Your task to perform on an android device: Open calendar and show me the second week of next month Image 0: 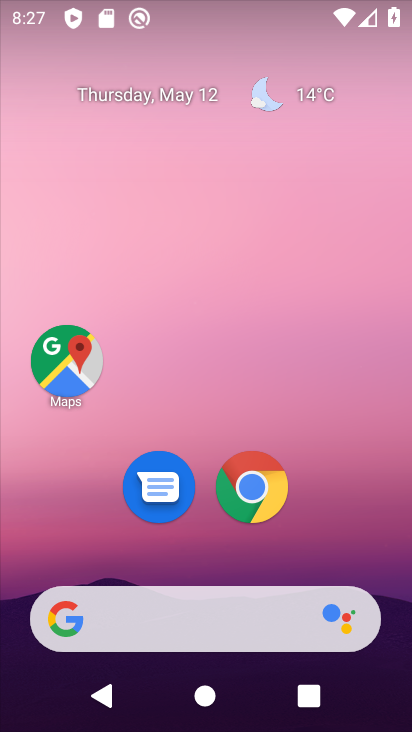
Step 0: drag from (46, 478) to (195, 187)
Your task to perform on an android device: Open calendar and show me the second week of next month Image 1: 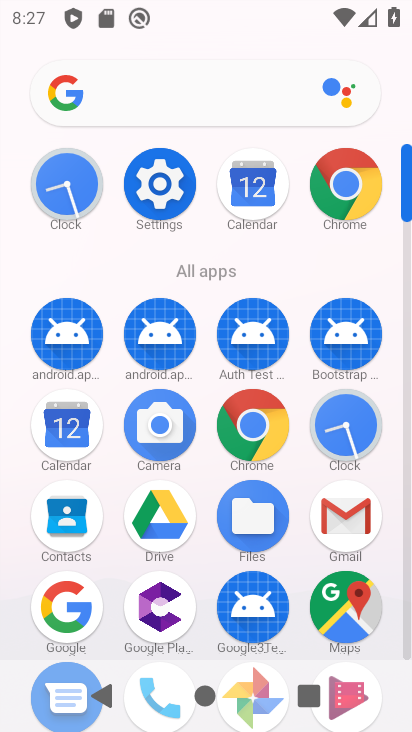
Step 1: click (236, 190)
Your task to perform on an android device: Open calendar and show me the second week of next month Image 2: 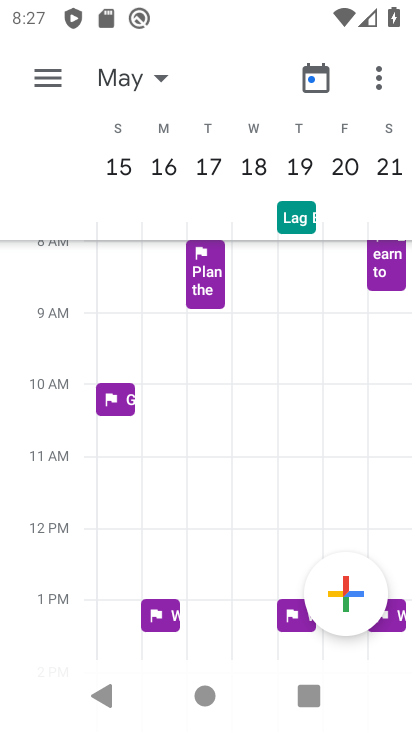
Step 2: click (150, 81)
Your task to perform on an android device: Open calendar and show me the second week of next month Image 3: 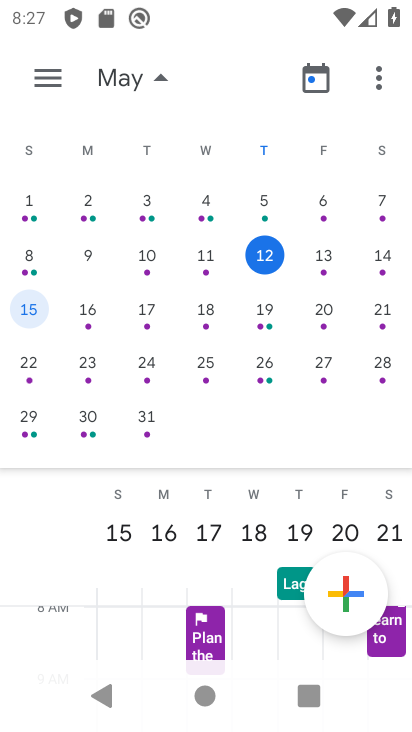
Step 3: drag from (374, 239) to (62, 218)
Your task to perform on an android device: Open calendar and show me the second week of next month Image 4: 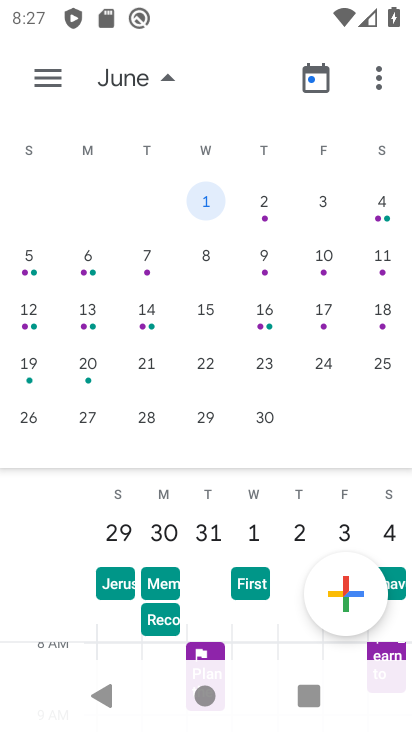
Step 4: click (85, 258)
Your task to perform on an android device: Open calendar and show me the second week of next month Image 5: 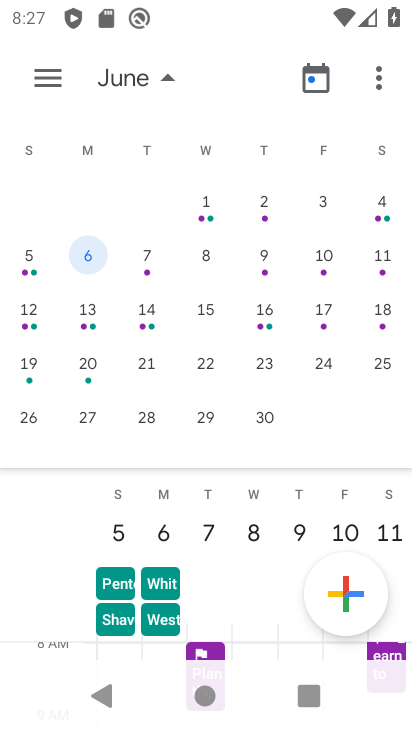
Step 5: click (143, 253)
Your task to perform on an android device: Open calendar and show me the second week of next month Image 6: 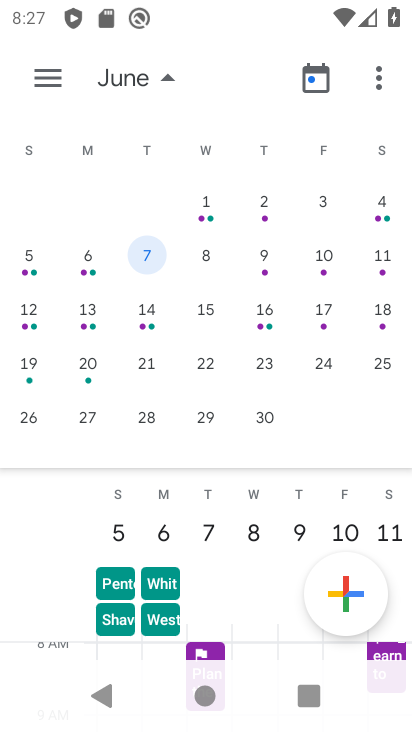
Step 6: click (210, 258)
Your task to perform on an android device: Open calendar and show me the second week of next month Image 7: 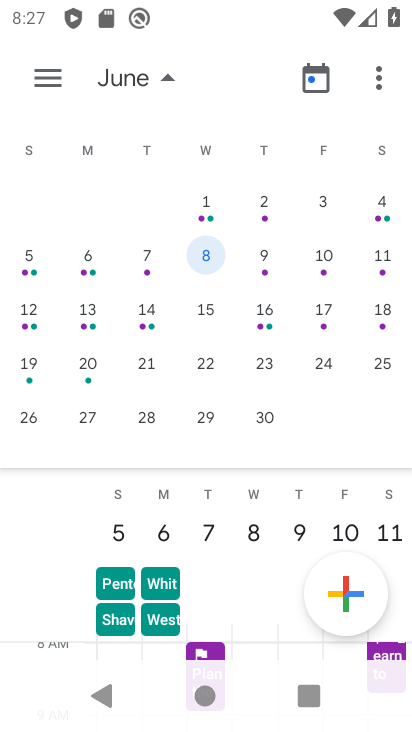
Step 7: click (259, 254)
Your task to perform on an android device: Open calendar and show me the second week of next month Image 8: 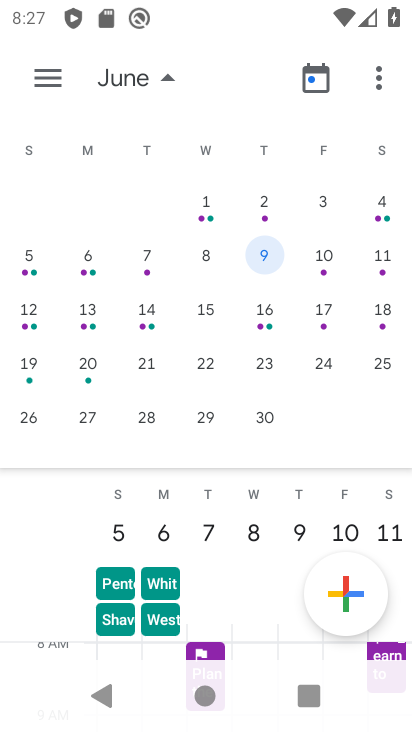
Step 8: click (313, 259)
Your task to perform on an android device: Open calendar and show me the second week of next month Image 9: 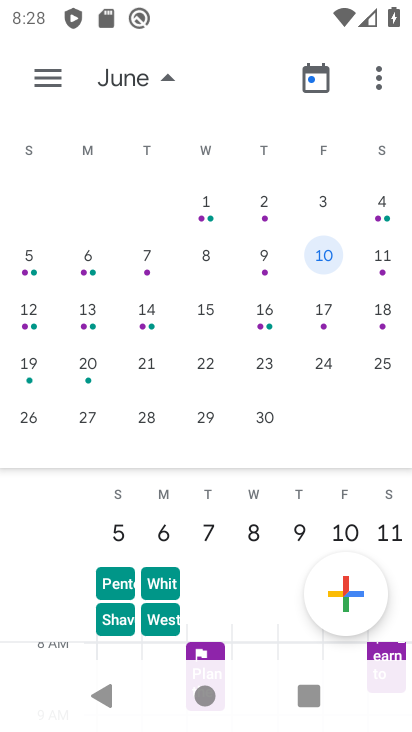
Step 9: click (96, 312)
Your task to perform on an android device: Open calendar and show me the second week of next month Image 10: 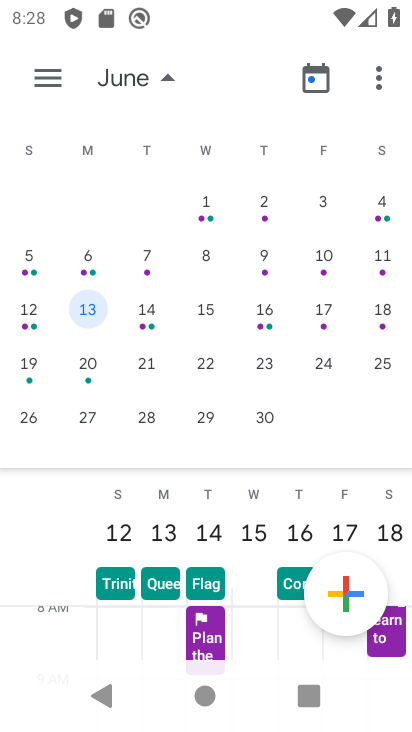
Step 10: click (149, 310)
Your task to perform on an android device: Open calendar and show me the second week of next month Image 11: 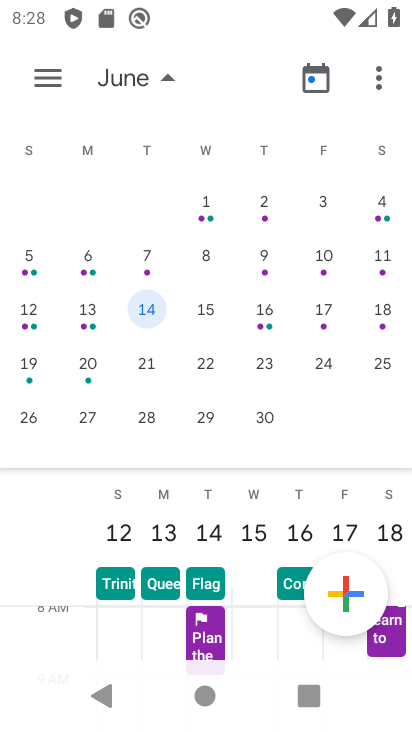
Step 11: click (195, 306)
Your task to perform on an android device: Open calendar and show me the second week of next month Image 12: 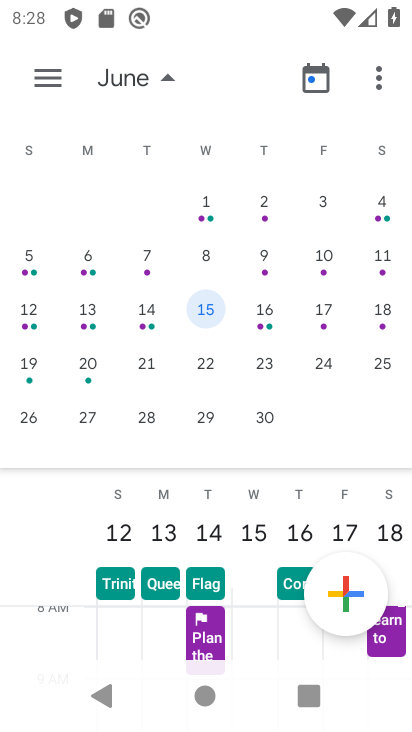
Step 12: click (263, 305)
Your task to perform on an android device: Open calendar and show me the second week of next month Image 13: 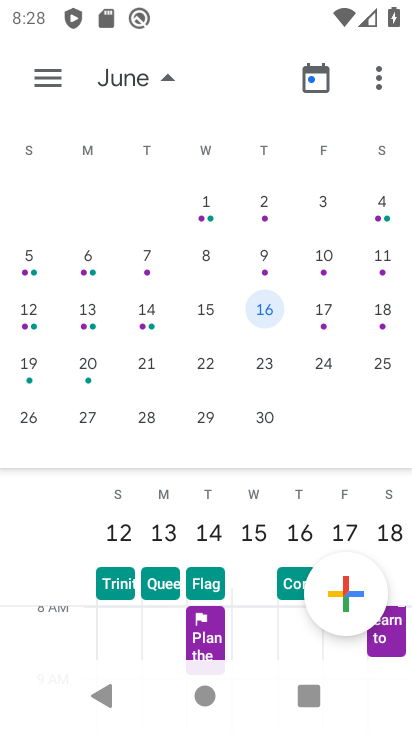
Step 13: click (309, 307)
Your task to perform on an android device: Open calendar and show me the second week of next month Image 14: 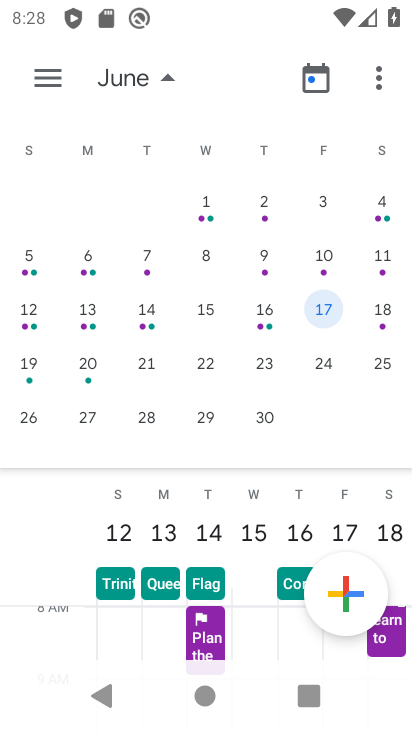
Step 14: task complete